Your task to perform on an android device: change keyboard looks Image 0: 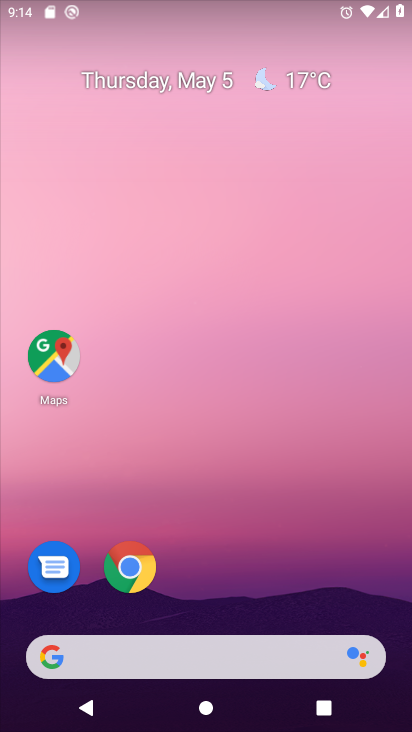
Step 0: drag from (264, 598) to (321, 51)
Your task to perform on an android device: change keyboard looks Image 1: 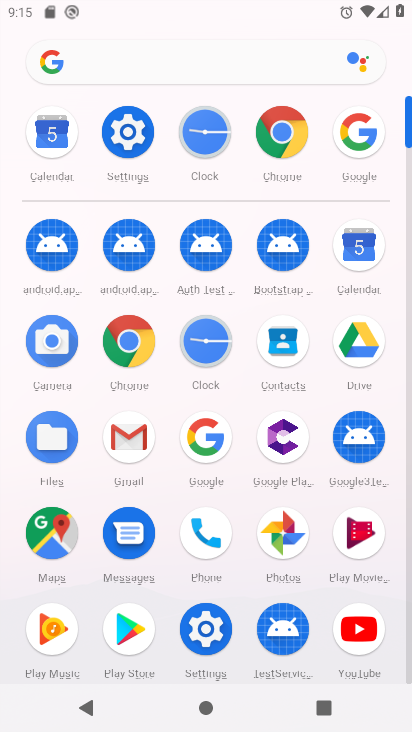
Step 1: click (130, 133)
Your task to perform on an android device: change keyboard looks Image 2: 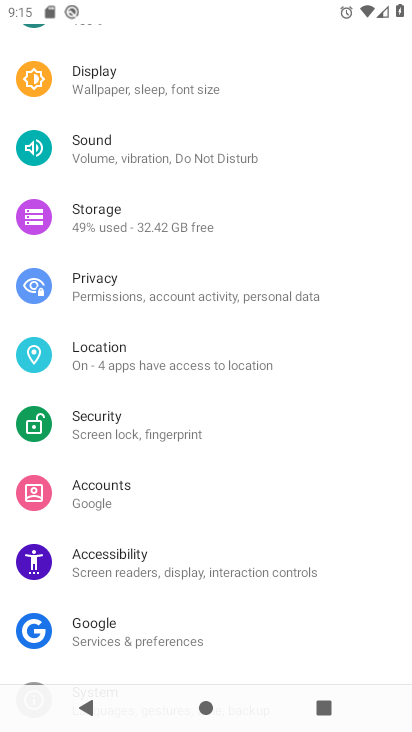
Step 2: drag from (174, 598) to (240, 207)
Your task to perform on an android device: change keyboard looks Image 3: 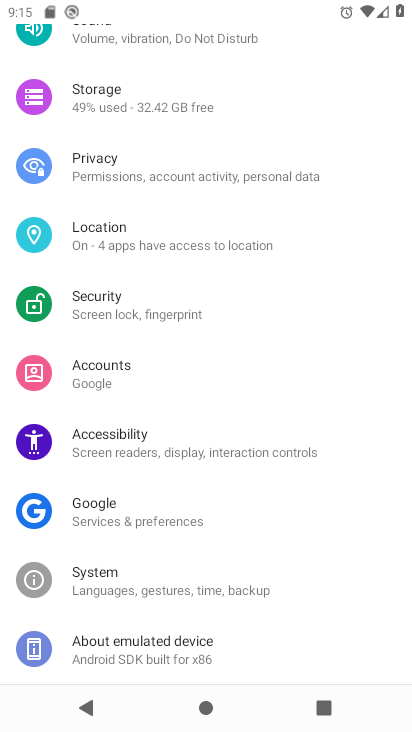
Step 3: click (166, 589)
Your task to perform on an android device: change keyboard looks Image 4: 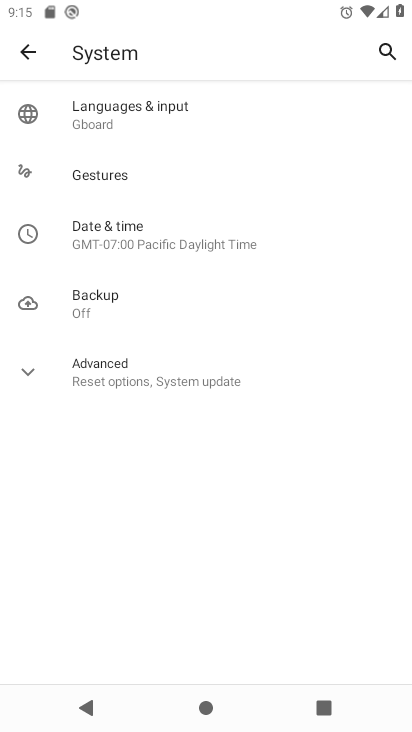
Step 4: click (179, 116)
Your task to perform on an android device: change keyboard looks Image 5: 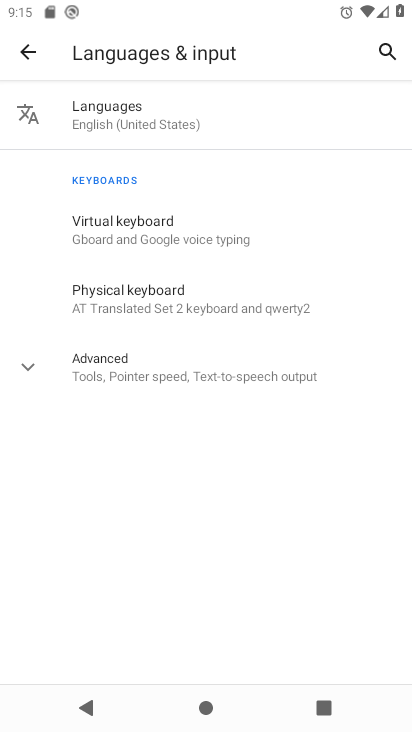
Step 5: click (179, 219)
Your task to perform on an android device: change keyboard looks Image 6: 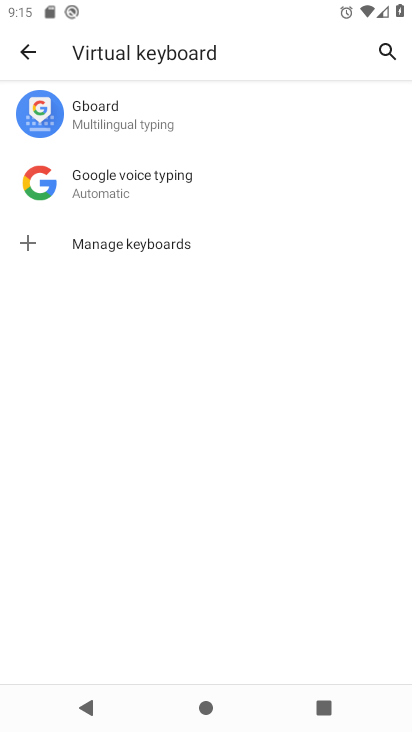
Step 6: click (134, 107)
Your task to perform on an android device: change keyboard looks Image 7: 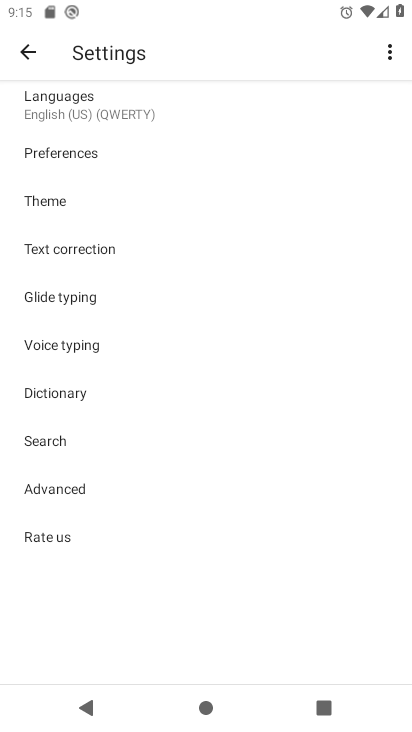
Step 7: click (72, 191)
Your task to perform on an android device: change keyboard looks Image 8: 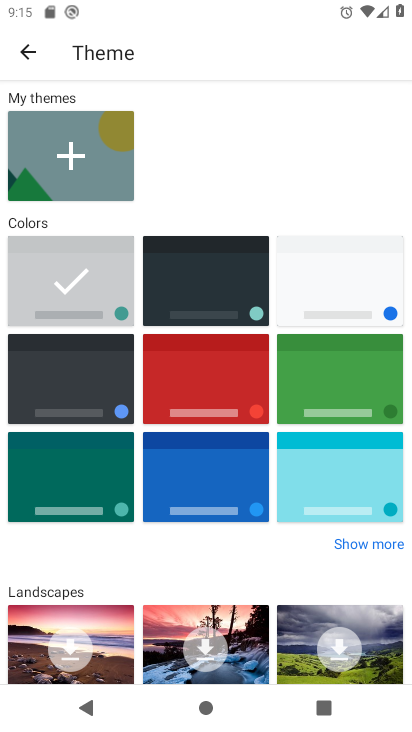
Step 8: click (312, 279)
Your task to perform on an android device: change keyboard looks Image 9: 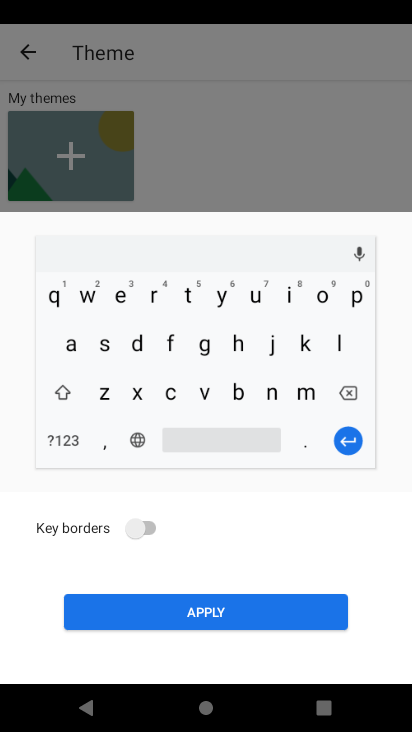
Step 9: click (142, 525)
Your task to perform on an android device: change keyboard looks Image 10: 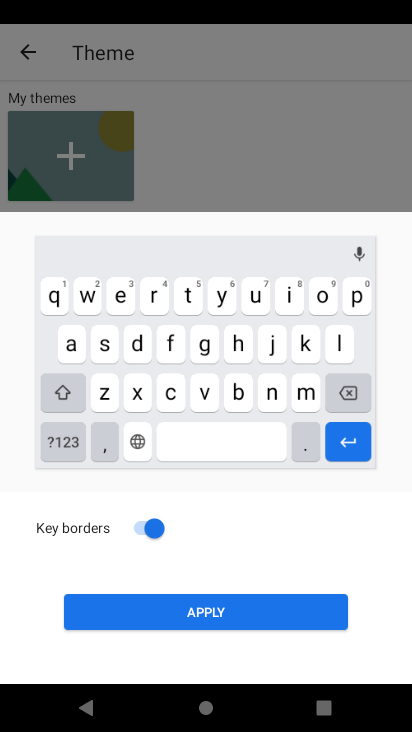
Step 10: click (196, 609)
Your task to perform on an android device: change keyboard looks Image 11: 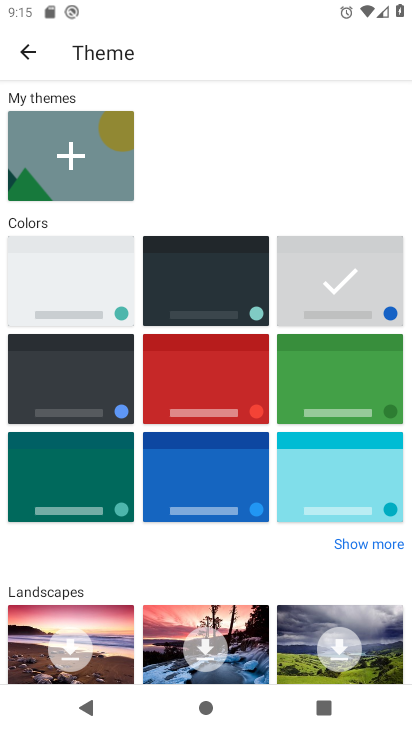
Step 11: task complete